Your task to perform on an android device: turn off location history Image 0: 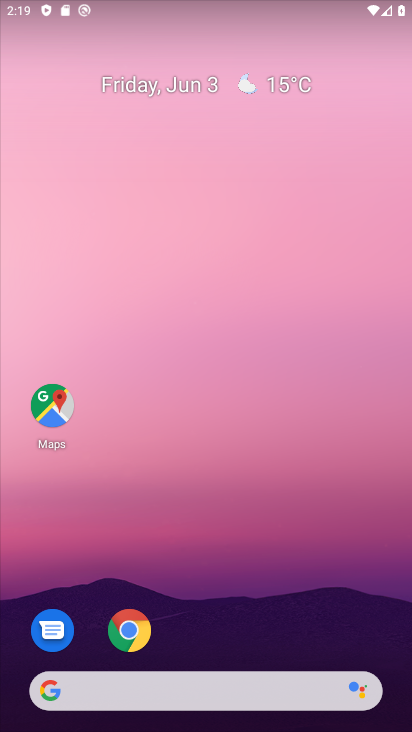
Step 0: click (38, 397)
Your task to perform on an android device: turn off location history Image 1: 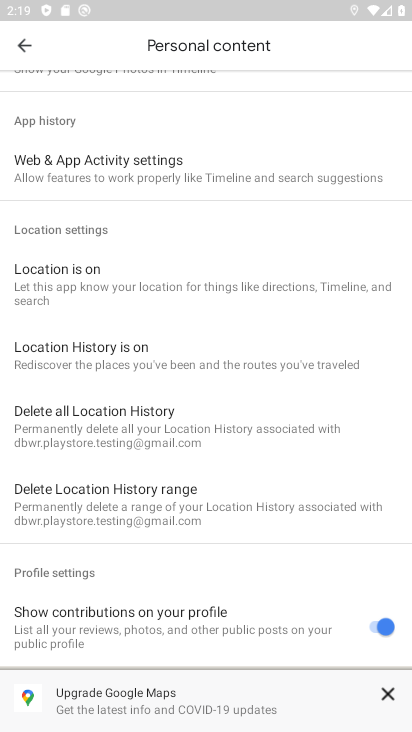
Step 1: click (116, 341)
Your task to perform on an android device: turn off location history Image 2: 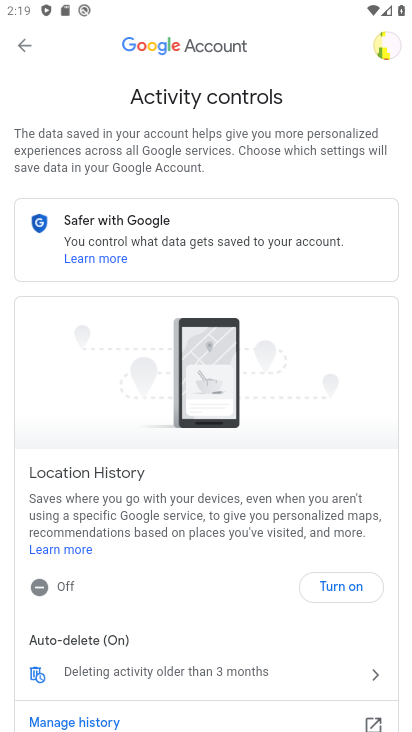
Step 2: click (358, 587)
Your task to perform on an android device: turn off location history Image 3: 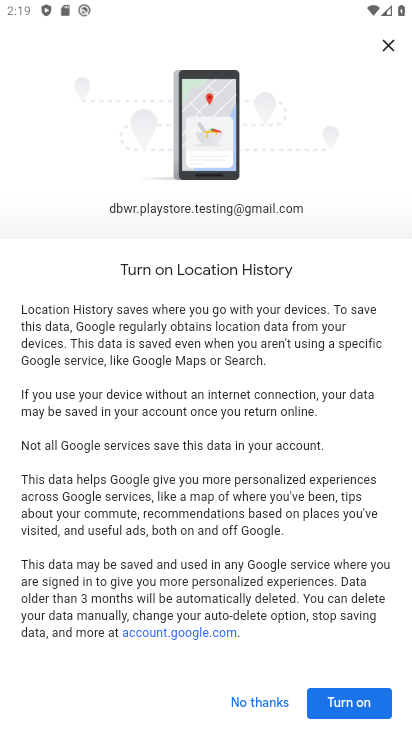
Step 3: click (353, 655)
Your task to perform on an android device: turn off location history Image 4: 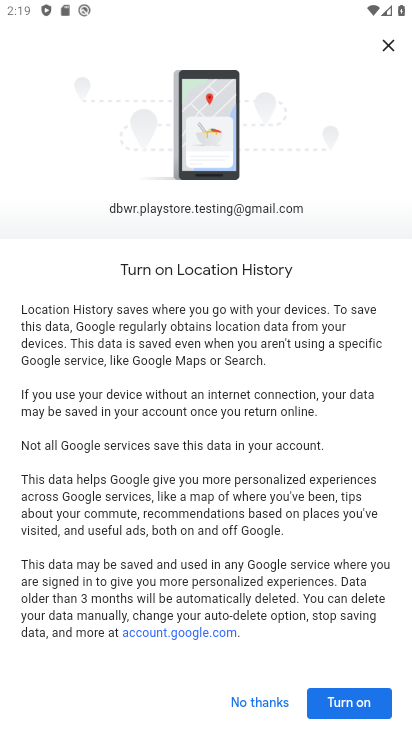
Step 4: task complete